Your task to perform on an android device: Show the shopping cart on costco. Image 0: 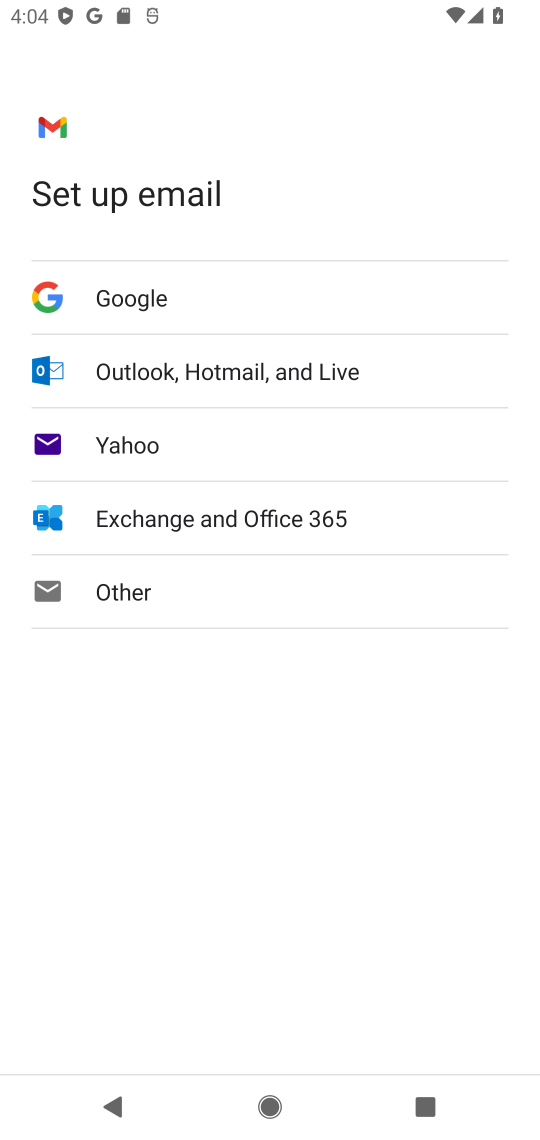
Step 0: press home button
Your task to perform on an android device: Show the shopping cart on costco. Image 1: 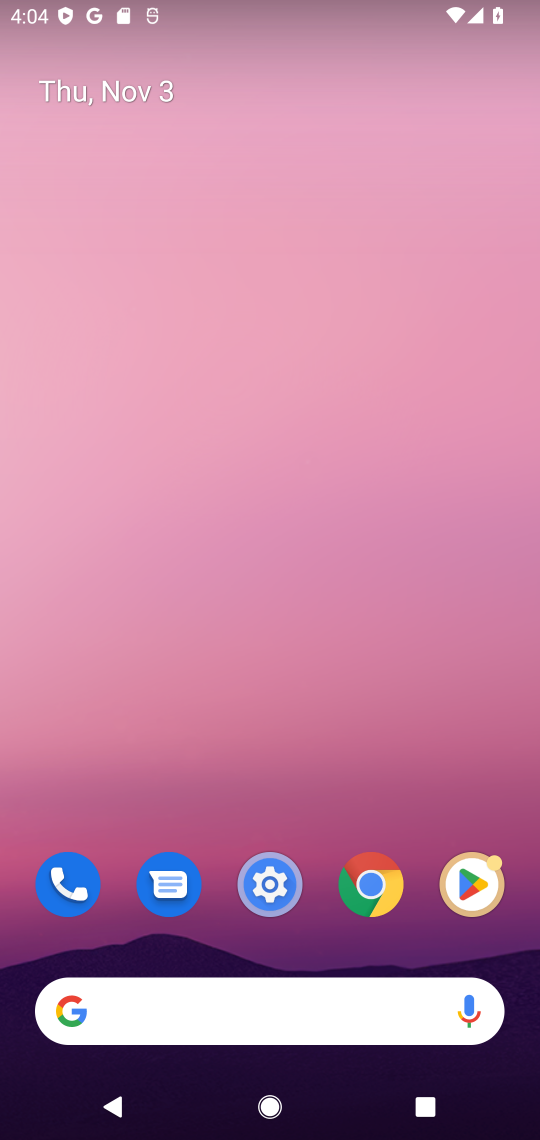
Step 1: click (104, 1010)
Your task to perform on an android device: Show the shopping cart on costco. Image 2: 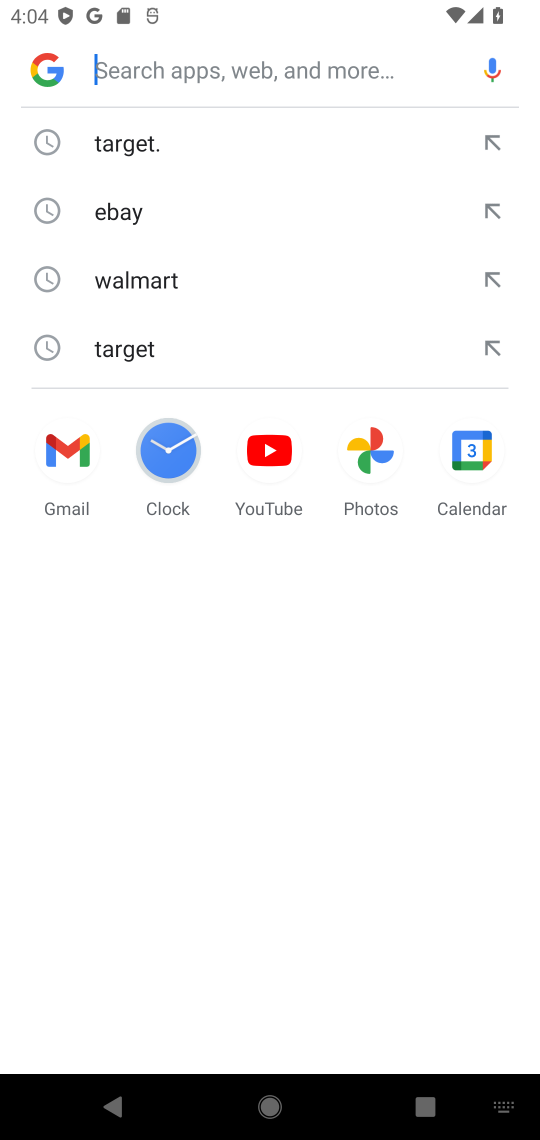
Step 2: type "costco"
Your task to perform on an android device: Show the shopping cart on costco. Image 3: 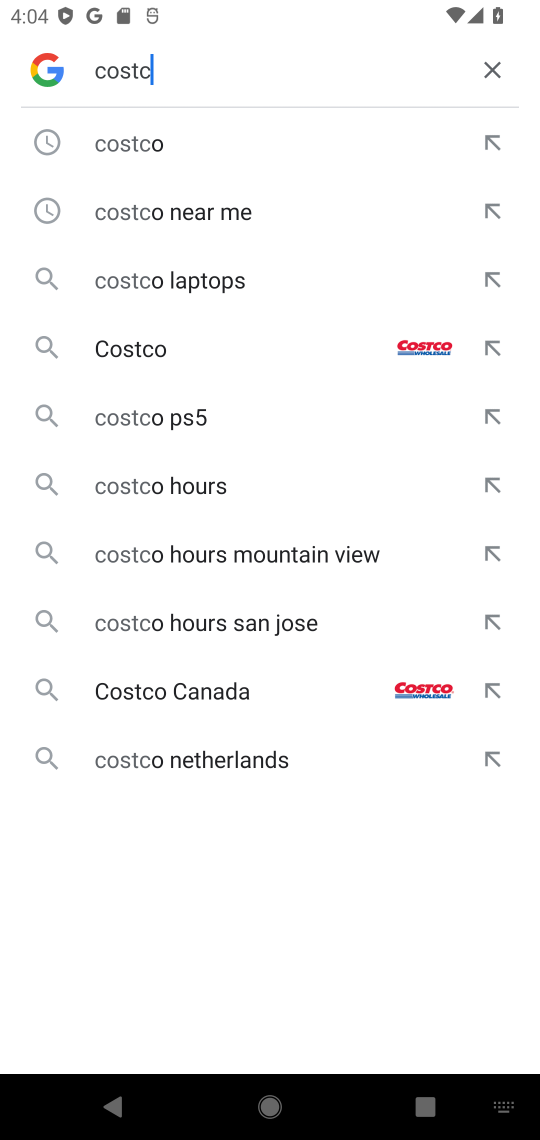
Step 3: press enter
Your task to perform on an android device: Show the shopping cart on costco. Image 4: 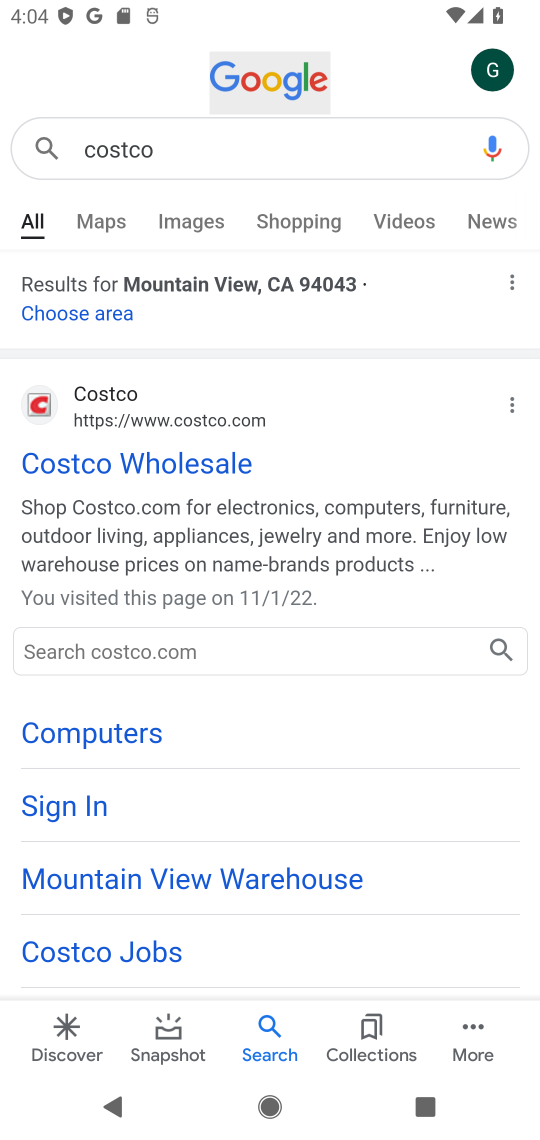
Step 4: click (150, 470)
Your task to perform on an android device: Show the shopping cart on costco. Image 5: 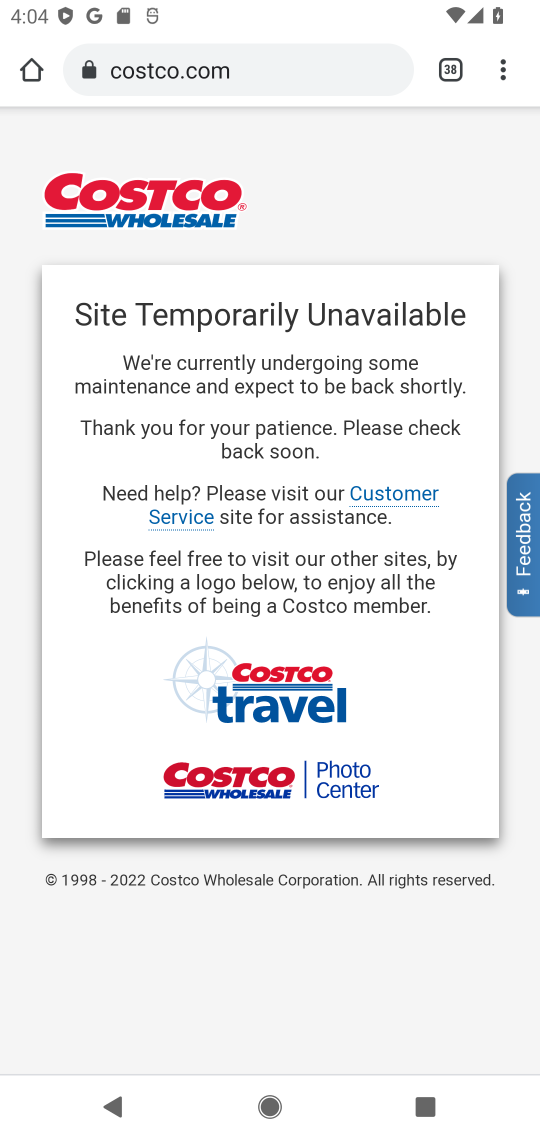
Step 5: task complete